Your task to perform on an android device: all mails in gmail Image 0: 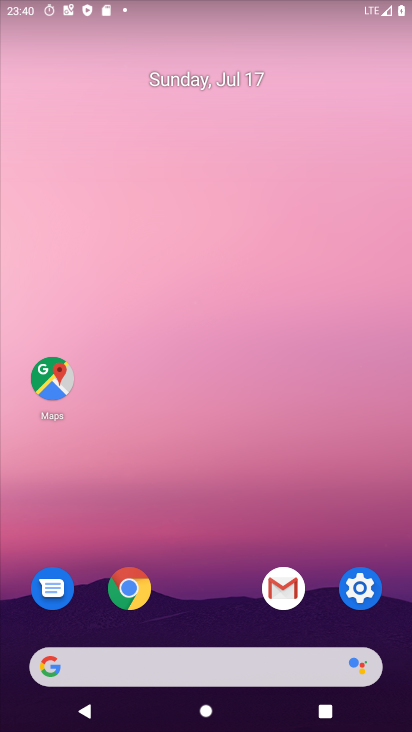
Step 0: click (296, 578)
Your task to perform on an android device: all mails in gmail Image 1: 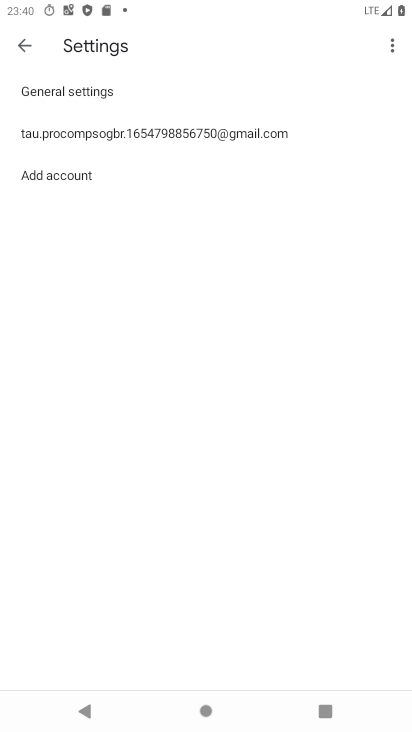
Step 1: click (21, 45)
Your task to perform on an android device: all mails in gmail Image 2: 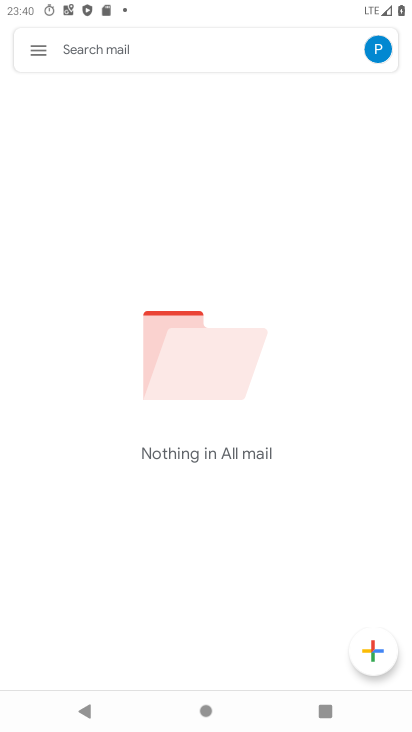
Step 2: click (55, 50)
Your task to perform on an android device: all mails in gmail Image 3: 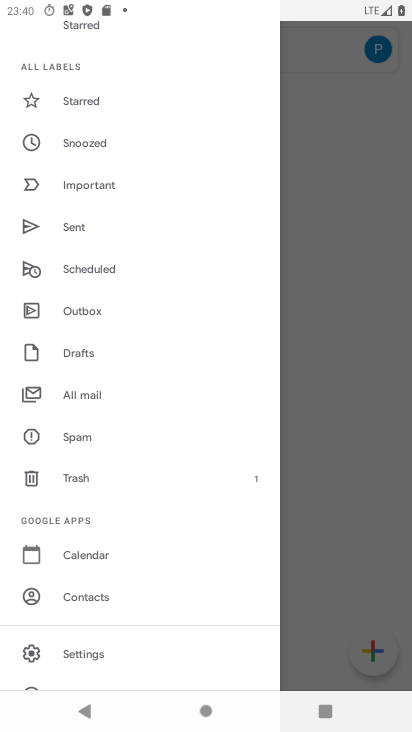
Step 3: click (111, 395)
Your task to perform on an android device: all mails in gmail Image 4: 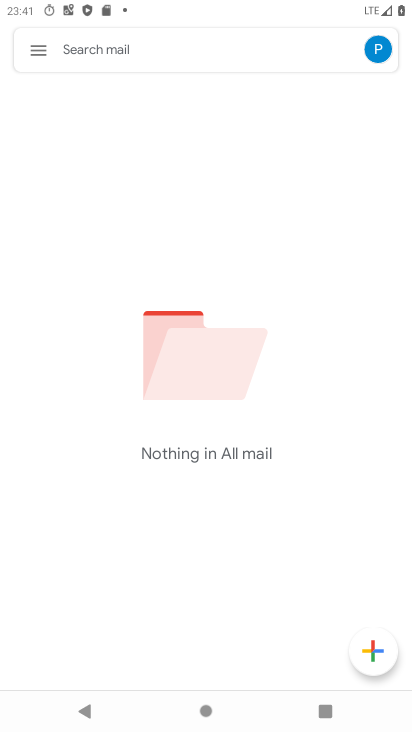
Step 4: task complete